Your task to perform on an android device: Open Google Image 0: 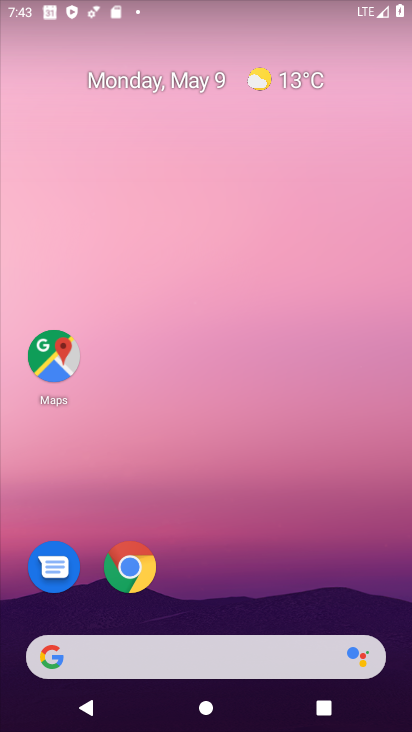
Step 0: click (116, 646)
Your task to perform on an android device: Open Google Image 1: 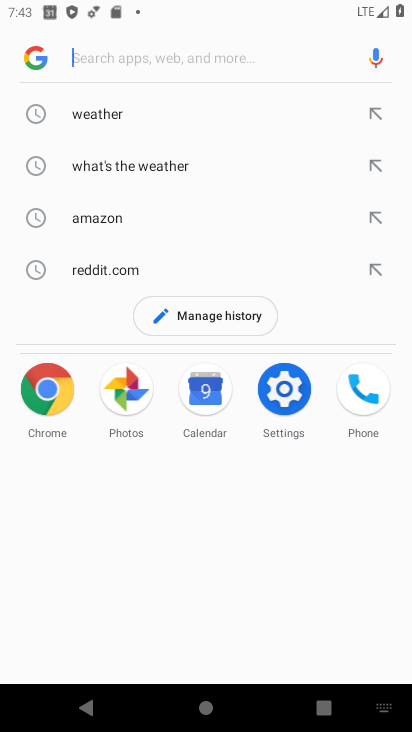
Step 1: click (34, 51)
Your task to perform on an android device: Open Google Image 2: 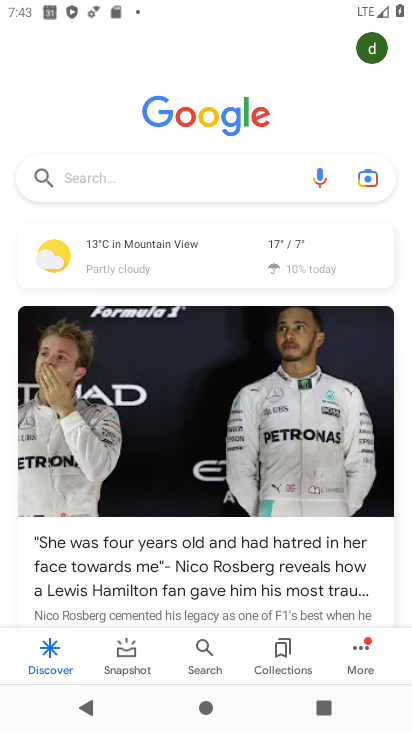
Step 2: task complete